Your task to perform on an android device: Search for pizza restaurants on Maps Image 0: 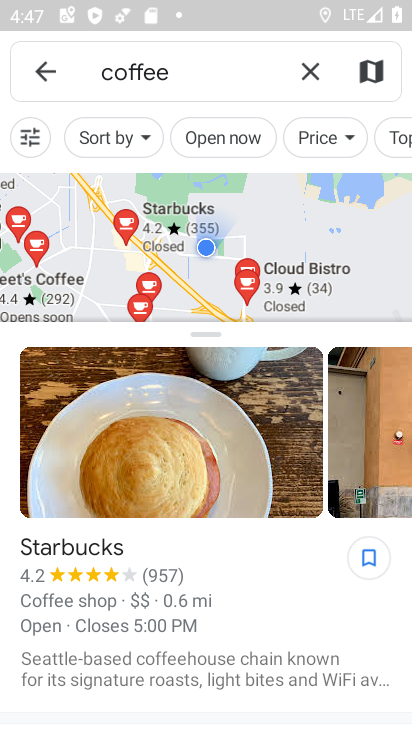
Step 0: press home button
Your task to perform on an android device: Search for pizza restaurants on Maps Image 1: 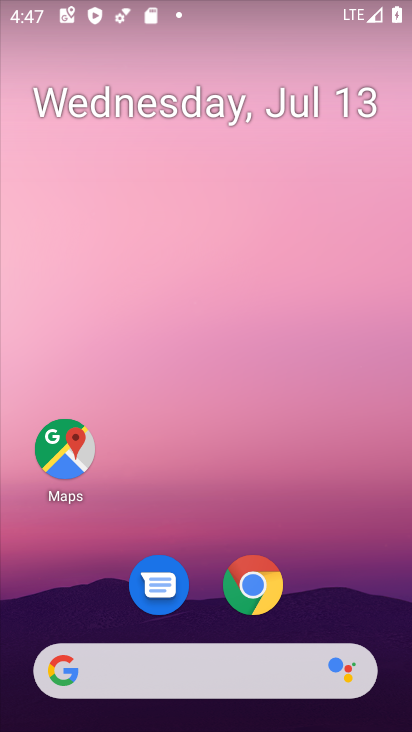
Step 1: click (74, 447)
Your task to perform on an android device: Search for pizza restaurants on Maps Image 2: 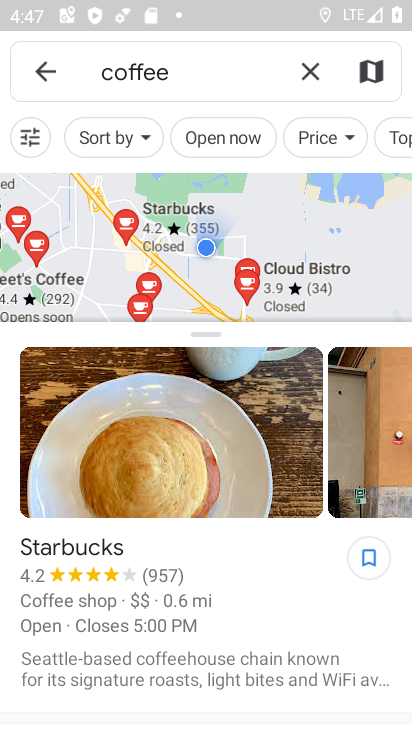
Step 2: click (311, 69)
Your task to perform on an android device: Search for pizza restaurants on Maps Image 3: 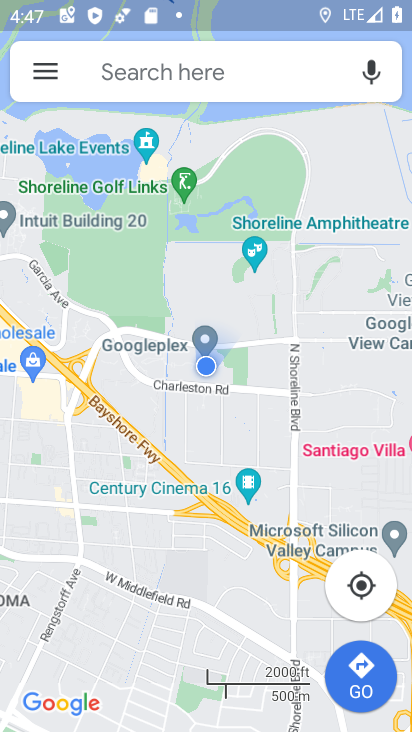
Step 3: click (261, 60)
Your task to perform on an android device: Search for pizza restaurants on Maps Image 4: 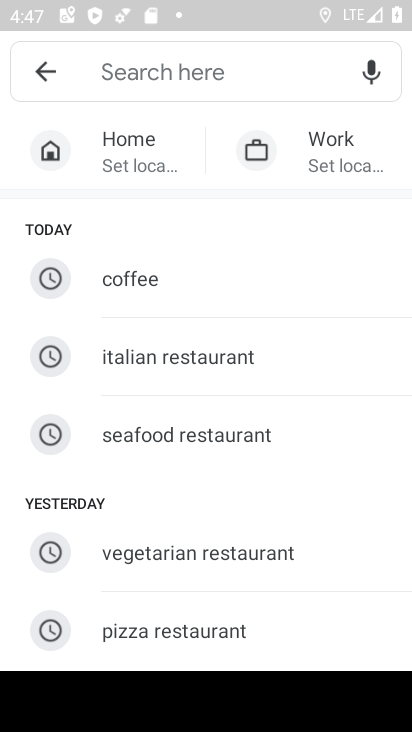
Step 4: click (159, 637)
Your task to perform on an android device: Search for pizza restaurants on Maps Image 5: 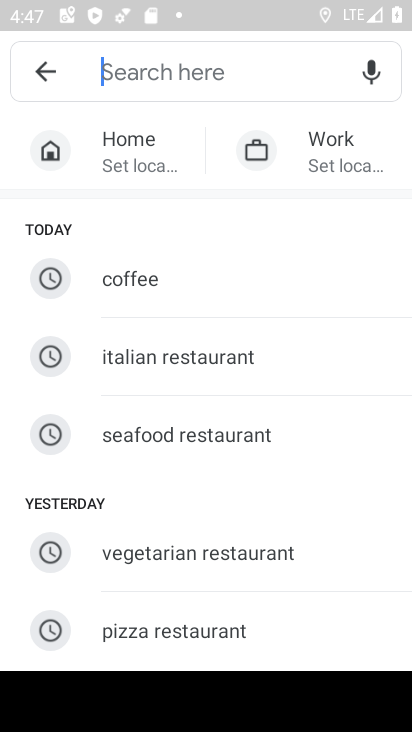
Step 5: click (159, 637)
Your task to perform on an android device: Search for pizza restaurants on Maps Image 6: 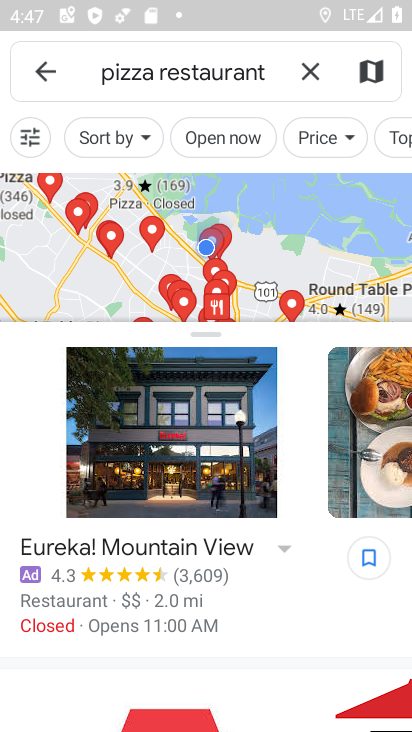
Step 6: task complete